Your task to perform on an android device: What is the news today? Image 0: 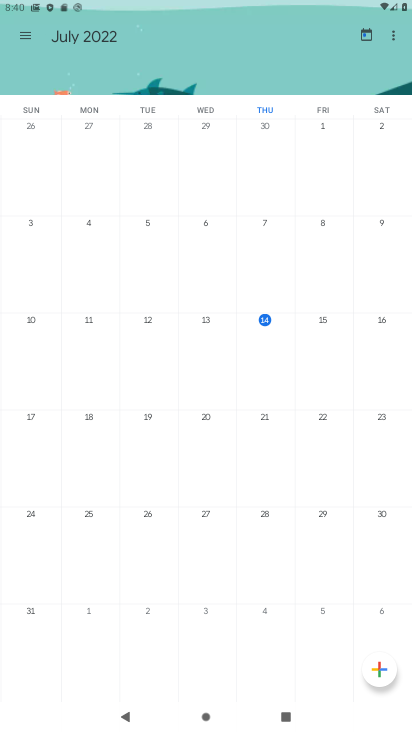
Step 0: press home button
Your task to perform on an android device: What is the news today? Image 1: 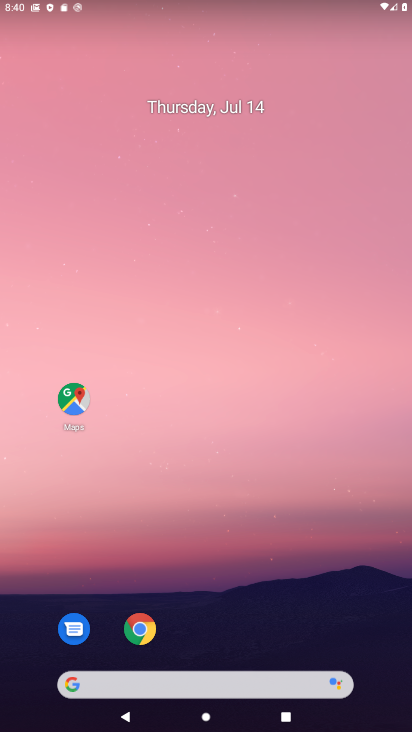
Step 1: task complete